Your task to perform on an android device: change the clock style Image 0: 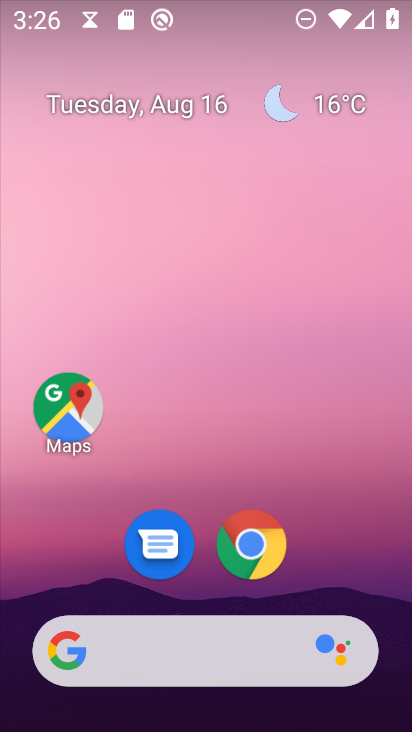
Step 0: drag from (212, 663) to (354, 53)
Your task to perform on an android device: change the clock style Image 1: 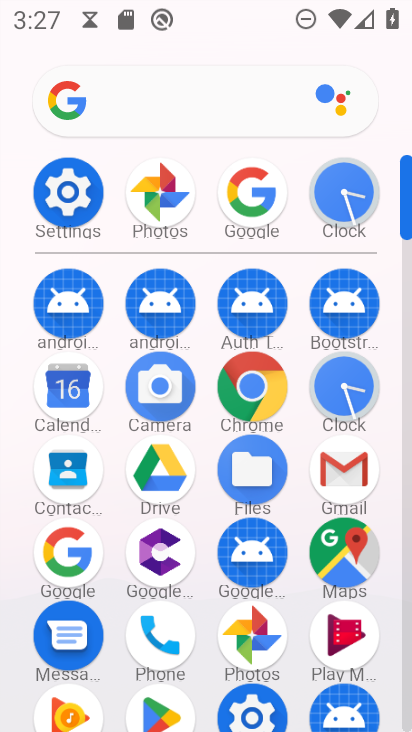
Step 1: click (342, 193)
Your task to perform on an android device: change the clock style Image 2: 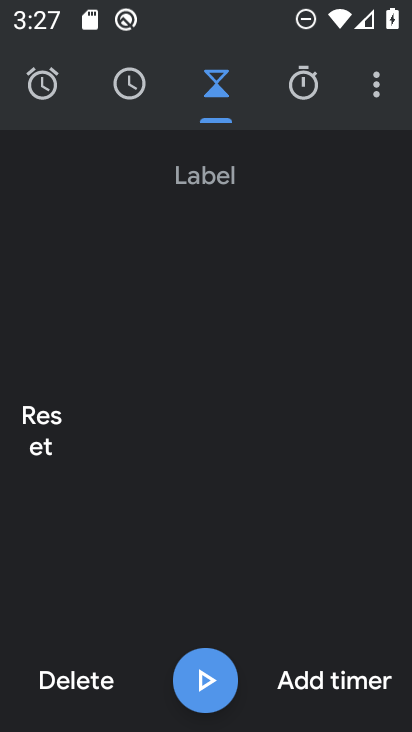
Step 2: click (379, 91)
Your task to perform on an android device: change the clock style Image 3: 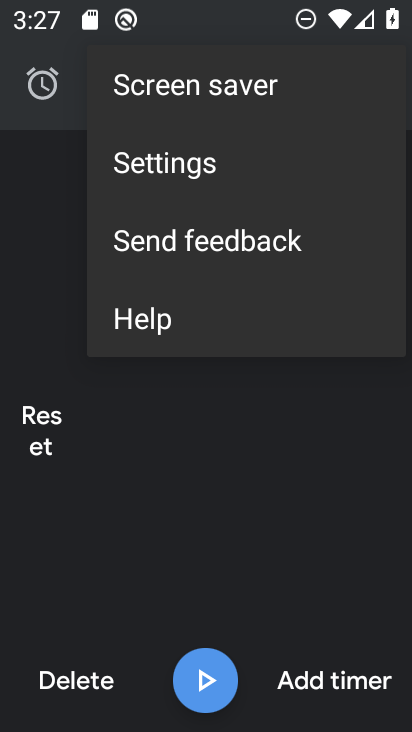
Step 3: click (183, 173)
Your task to perform on an android device: change the clock style Image 4: 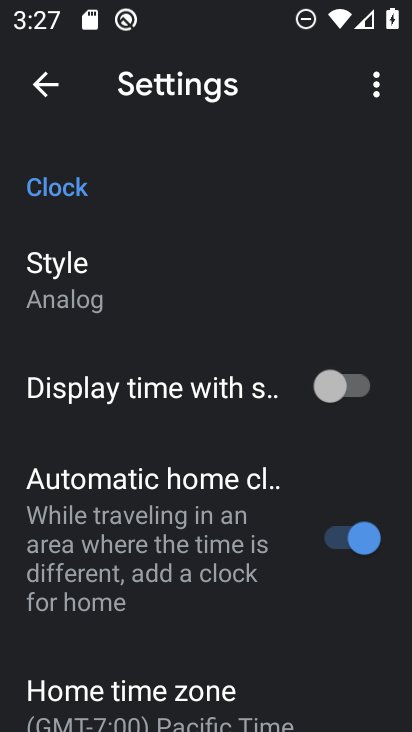
Step 4: click (63, 299)
Your task to perform on an android device: change the clock style Image 5: 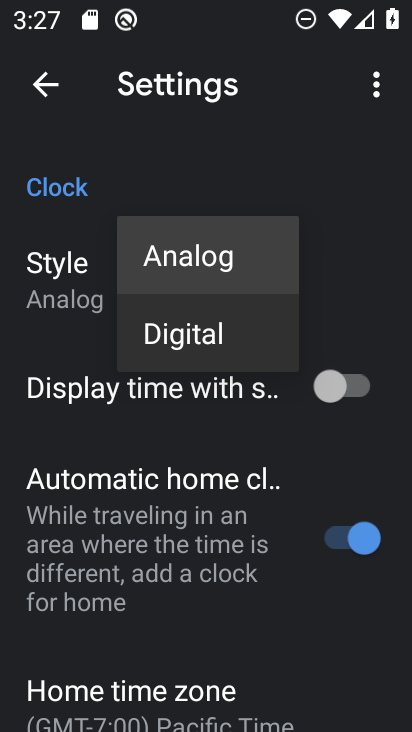
Step 5: click (203, 344)
Your task to perform on an android device: change the clock style Image 6: 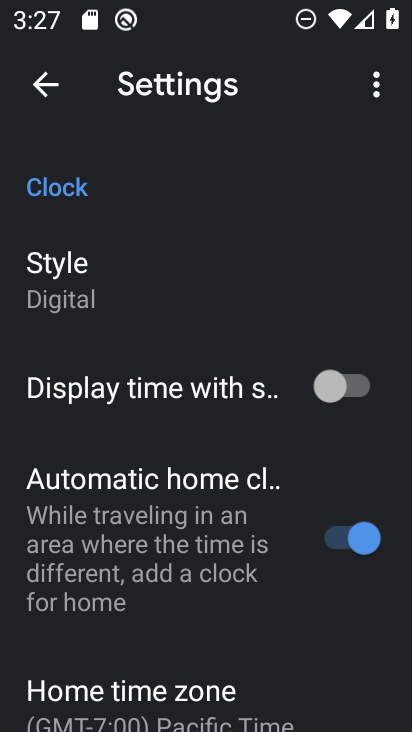
Step 6: task complete